Your task to perform on an android device: all mails in gmail Image 0: 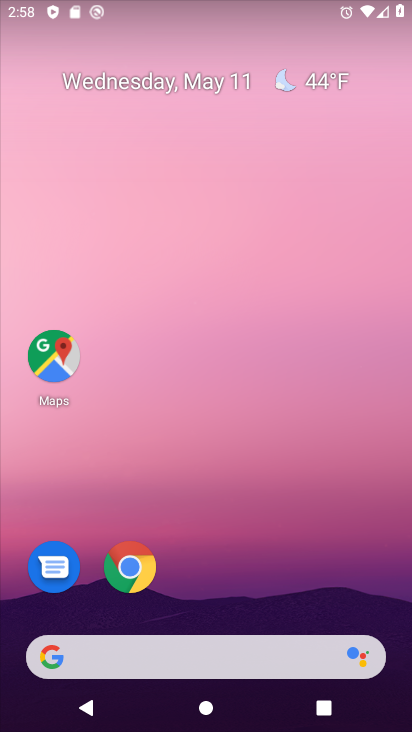
Step 0: drag from (221, 532) to (193, 78)
Your task to perform on an android device: all mails in gmail Image 1: 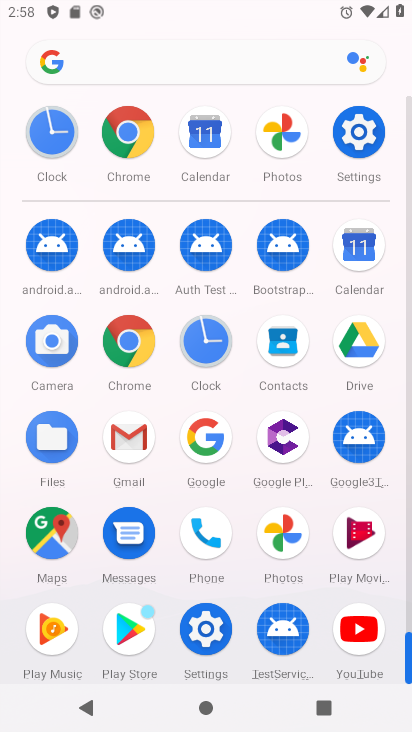
Step 1: drag from (11, 495) to (11, 207)
Your task to perform on an android device: all mails in gmail Image 2: 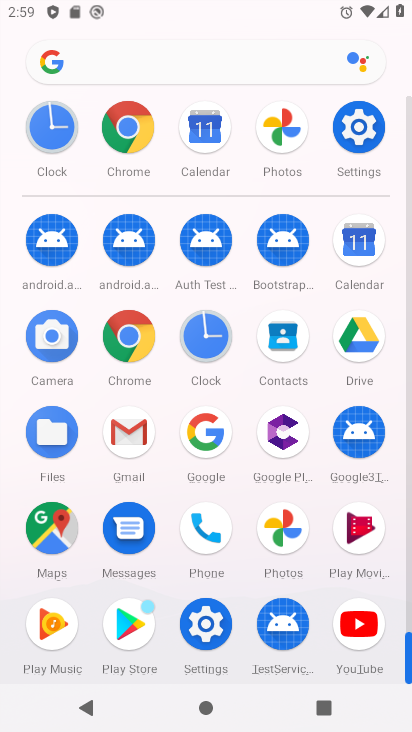
Step 2: click (125, 430)
Your task to perform on an android device: all mails in gmail Image 3: 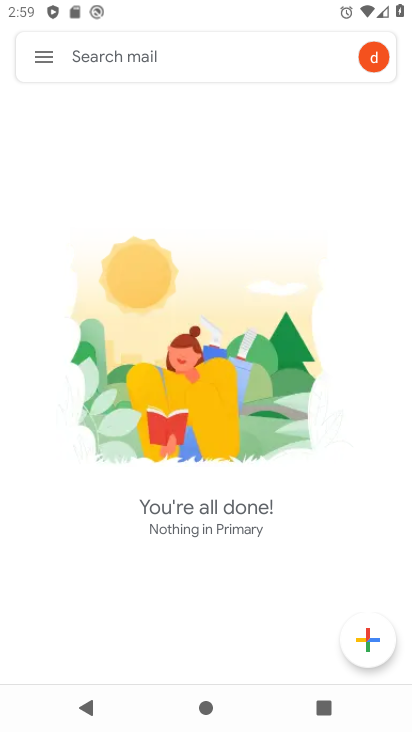
Step 3: click (49, 50)
Your task to perform on an android device: all mails in gmail Image 4: 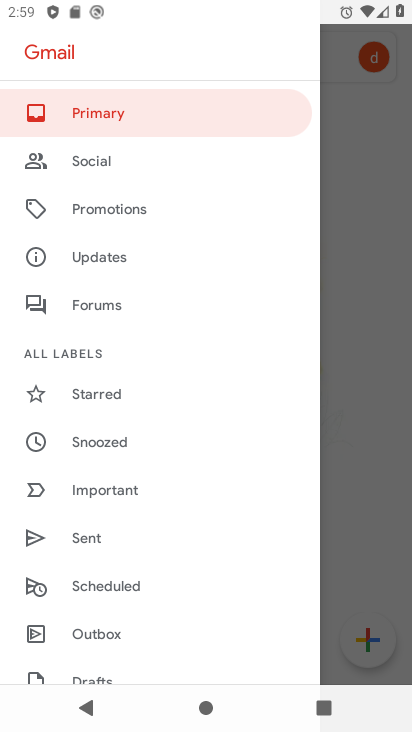
Step 4: drag from (162, 462) to (152, 200)
Your task to perform on an android device: all mails in gmail Image 5: 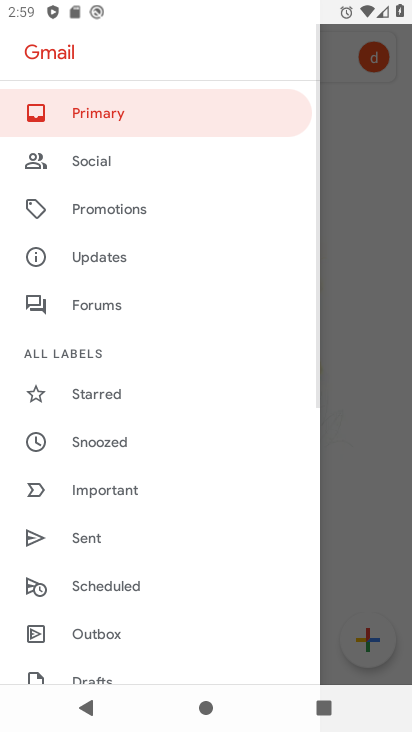
Step 5: drag from (120, 587) to (144, 196)
Your task to perform on an android device: all mails in gmail Image 6: 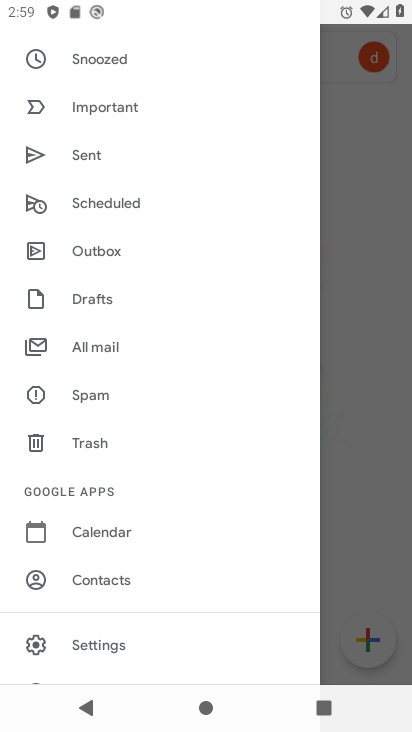
Step 6: click (108, 339)
Your task to perform on an android device: all mails in gmail Image 7: 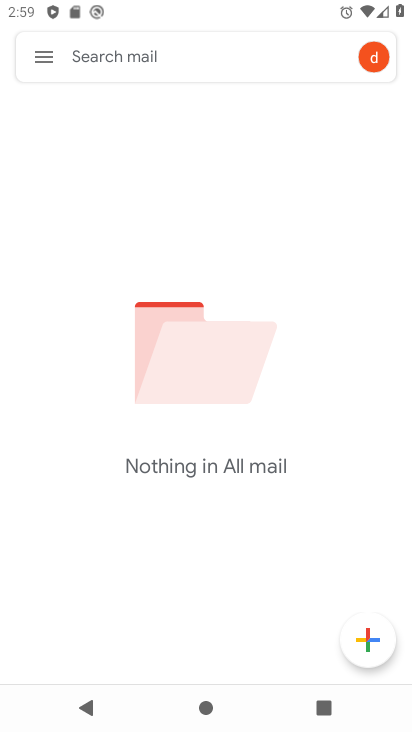
Step 7: task complete